Your task to perform on an android device: turn on wifi Image 0: 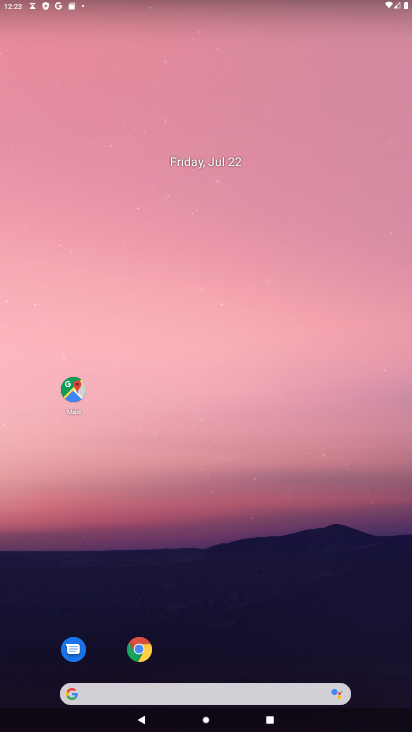
Step 0: drag from (341, 6) to (327, 467)
Your task to perform on an android device: turn on wifi Image 1: 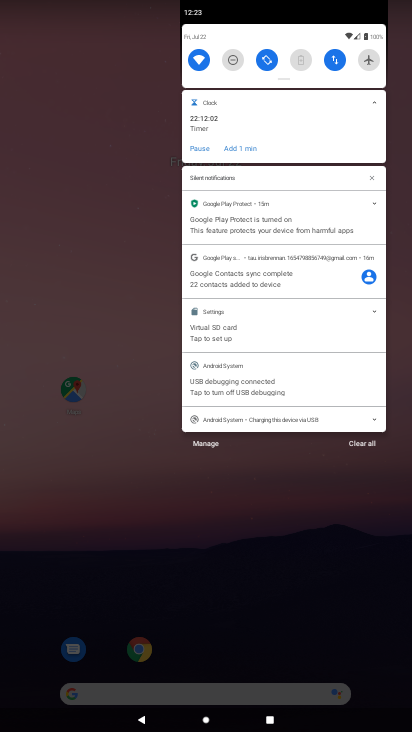
Step 1: task complete